Your task to perform on an android device: turn on the 12-hour format for clock Image 0: 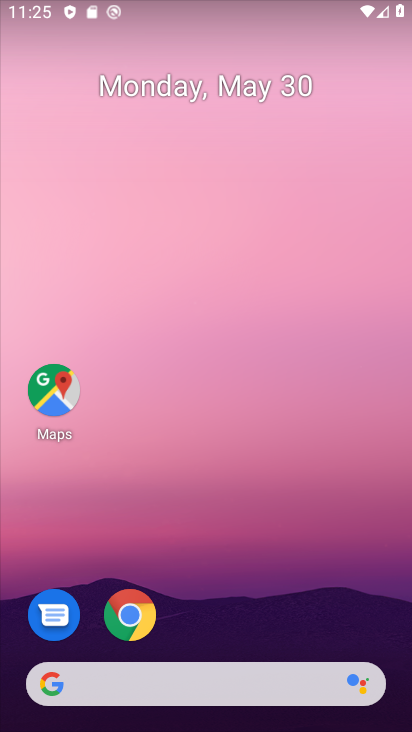
Step 0: drag from (387, 605) to (353, 166)
Your task to perform on an android device: turn on the 12-hour format for clock Image 1: 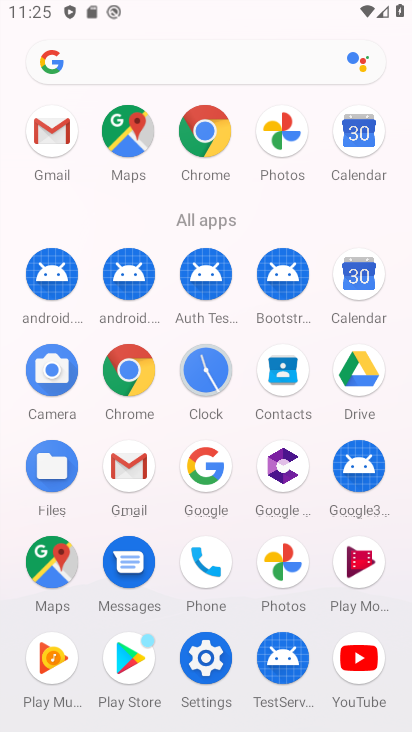
Step 1: click (222, 368)
Your task to perform on an android device: turn on the 12-hour format for clock Image 2: 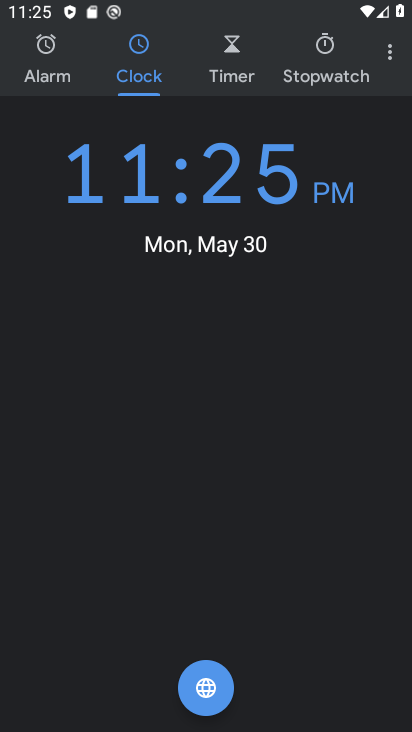
Step 2: click (382, 58)
Your task to perform on an android device: turn on the 12-hour format for clock Image 3: 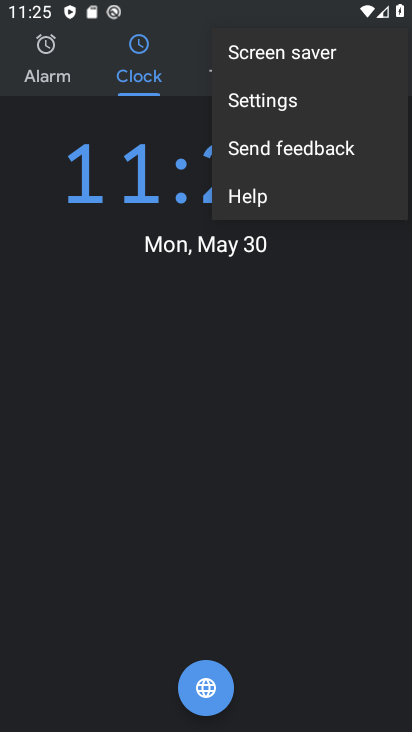
Step 3: click (281, 94)
Your task to perform on an android device: turn on the 12-hour format for clock Image 4: 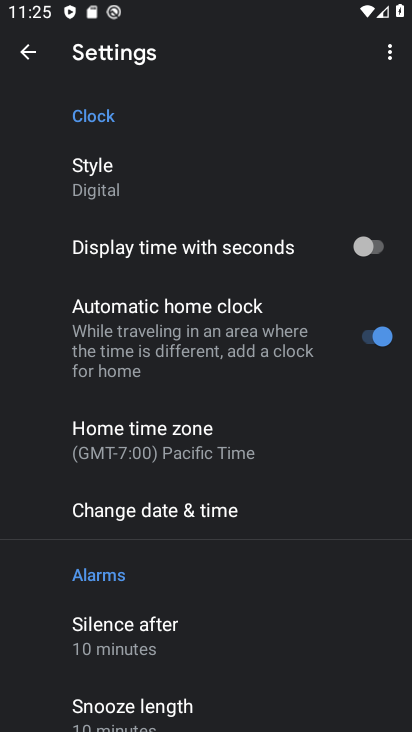
Step 4: drag from (291, 482) to (291, 367)
Your task to perform on an android device: turn on the 12-hour format for clock Image 5: 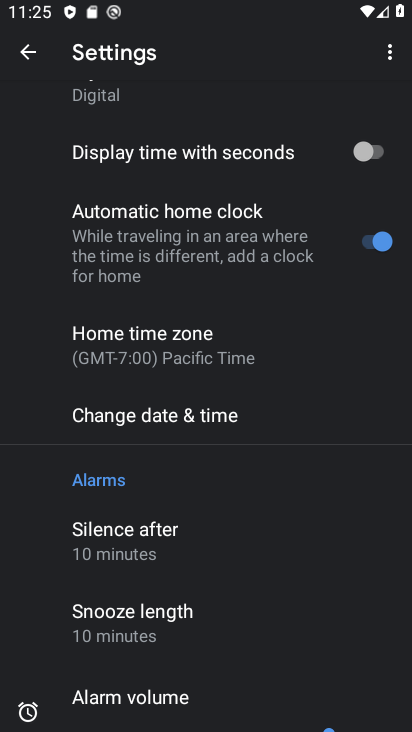
Step 5: drag from (297, 488) to (310, 368)
Your task to perform on an android device: turn on the 12-hour format for clock Image 6: 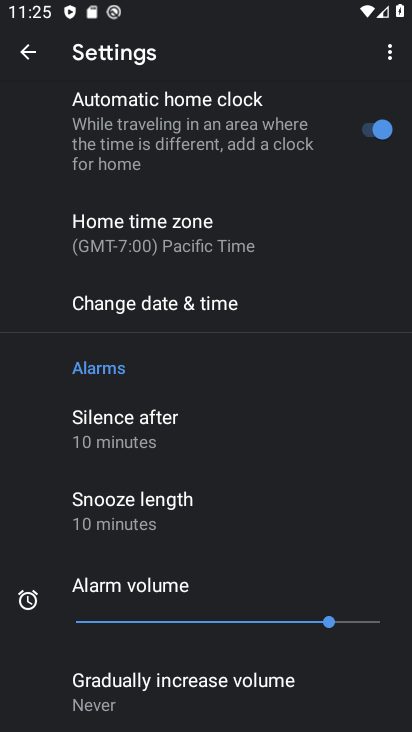
Step 6: click (263, 327)
Your task to perform on an android device: turn on the 12-hour format for clock Image 7: 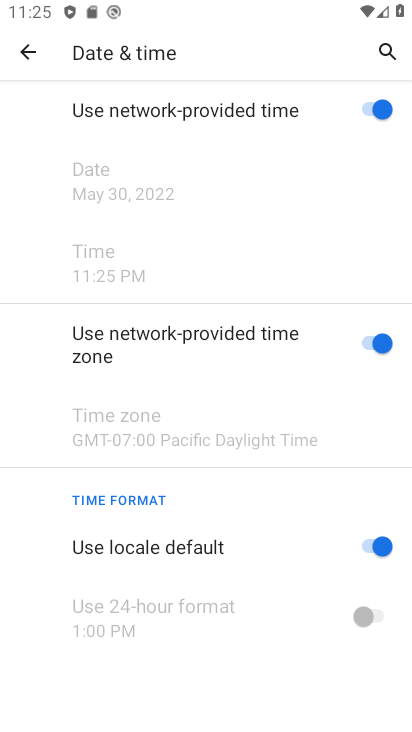
Step 7: task complete